Your task to perform on an android device: Show me recent news Image 0: 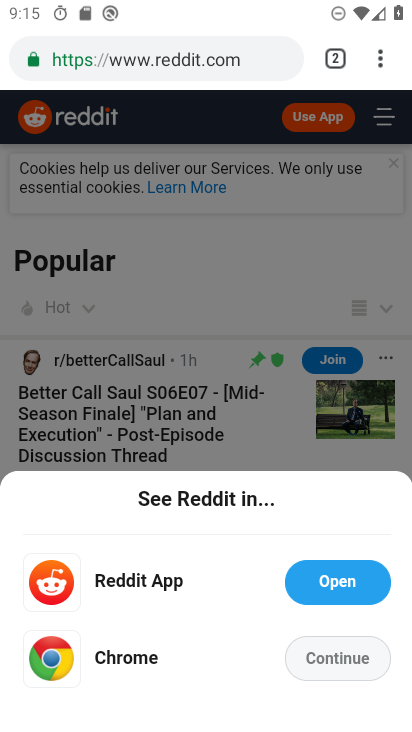
Step 0: press home button
Your task to perform on an android device: Show me recent news Image 1: 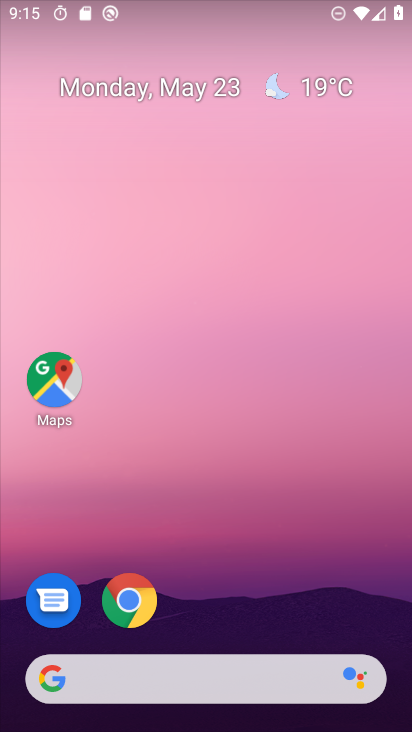
Step 1: click (192, 680)
Your task to perform on an android device: Show me recent news Image 2: 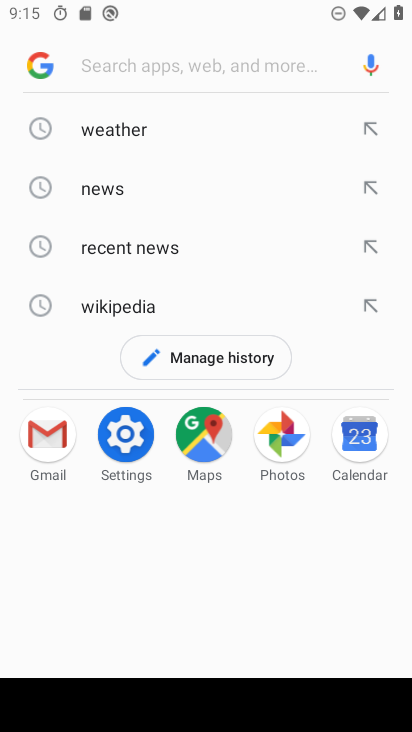
Step 2: click (103, 185)
Your task to perform on an android device: Show me recent news Image 3: 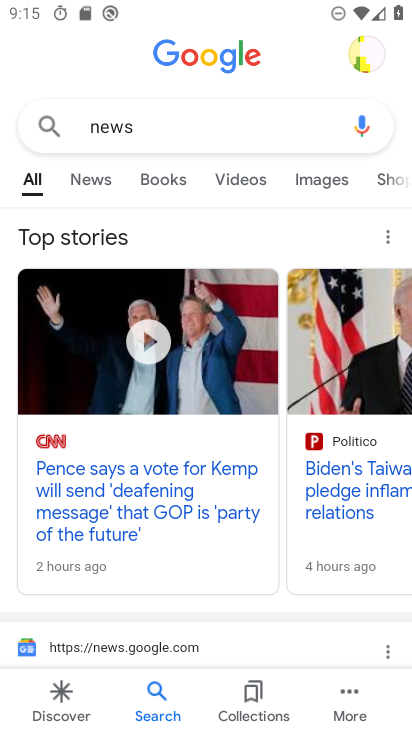
Step 3: task complete